Your task to perform on an android device: show emergency info Image 0: 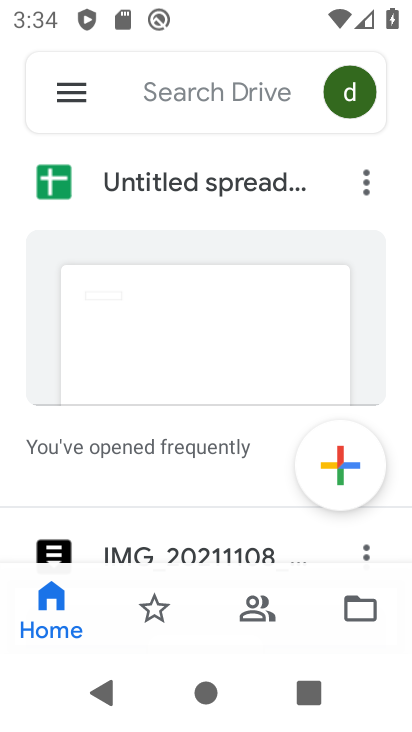
Step 0: press back button
Your task to perform on an android device: show emergency info Image 1: 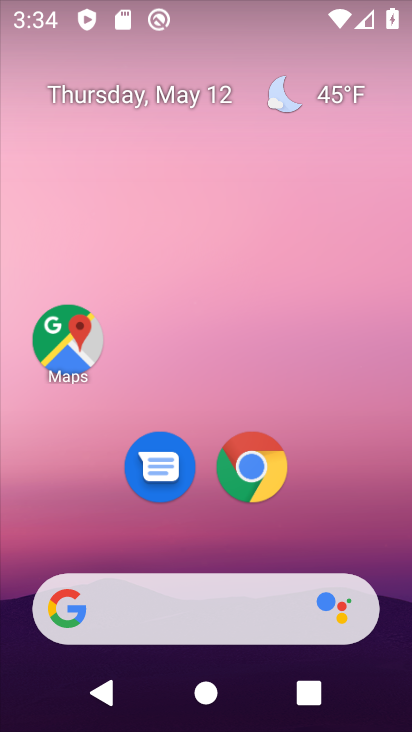
Step 1: drag from (166, 544) to (245, 11)
Your task to perform on an android device: show emergency info Image 2: 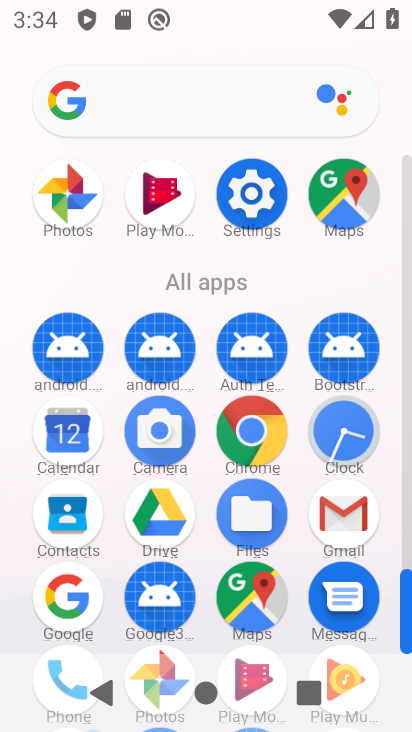
Step 2: drag from (201, 610) to (284, 305)
Your task to perform on an android device: show emergency info Image 3: 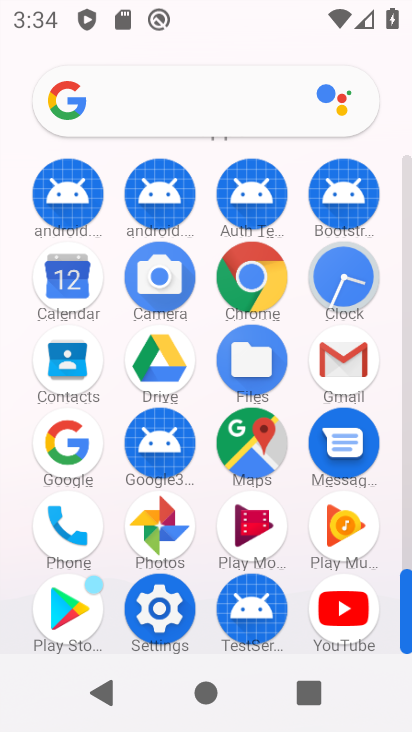
Step 3: click (166, 621)
Your task to perform on an android device: show emergency info Image 4: 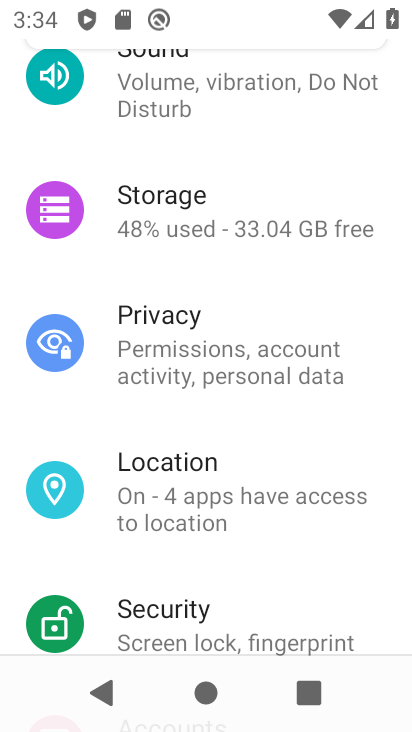
Step 4: drag from (245, 621) to (336, 135)
Your task to perform on an android device: show emergency info Image 5: 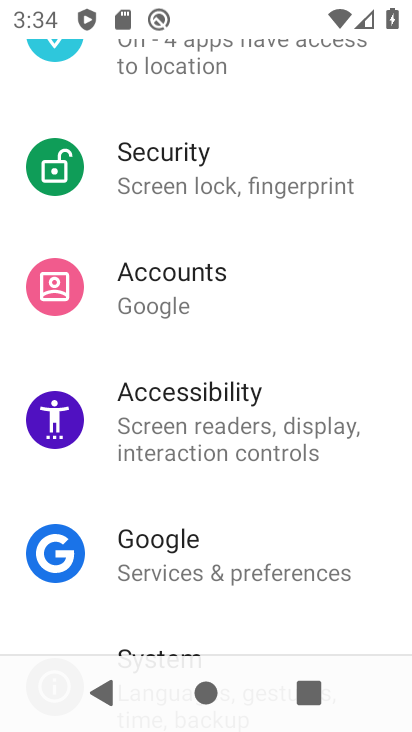
Step 5: drag from (235, 603) to (342, 41)
Your task to perform on an android device: show emergency info Image 6: 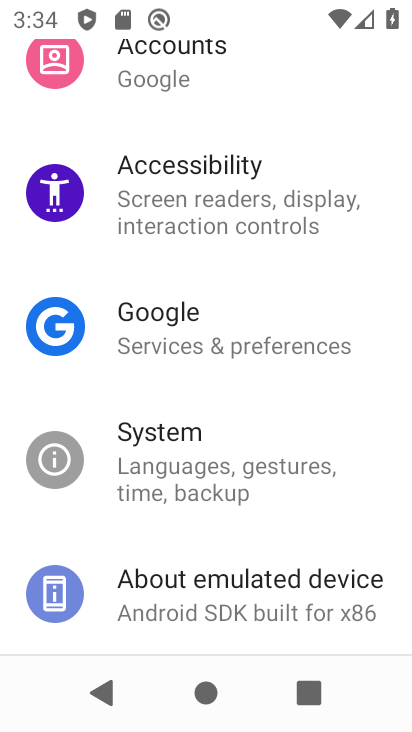
Step 6: drag from (168, 635) to (291, 172)
Your task to perform on an android device: show emergency info Image 7: 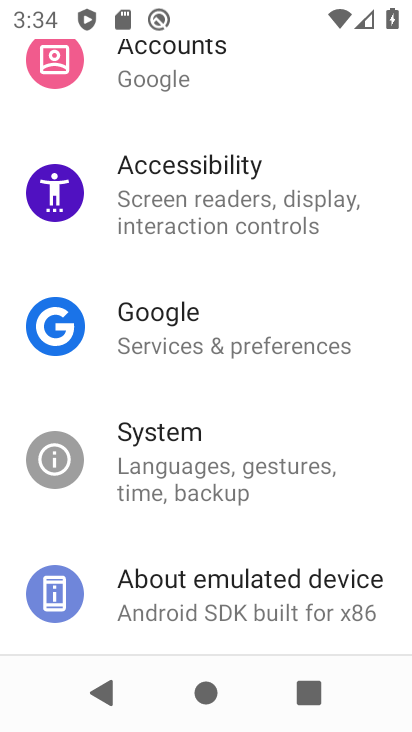
Step 7: click (282, 604)
Your task to perform on an android device: show emergency info Image 8: 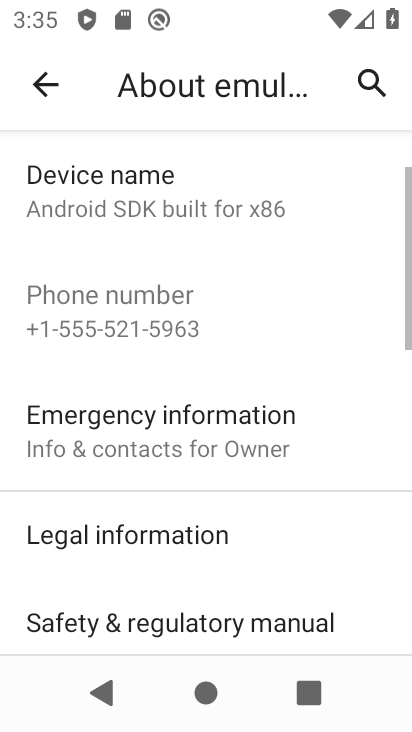
Step 8: click (200, 433)
Your task to perform on an android device: show emergency info Image 9: 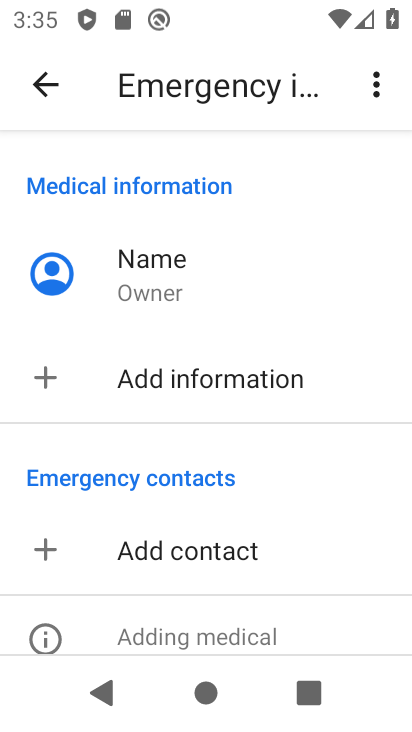
Step 9: task complete